Your task to perform on an android device: read, delete, or share a saved page in the chrome app Image 0: 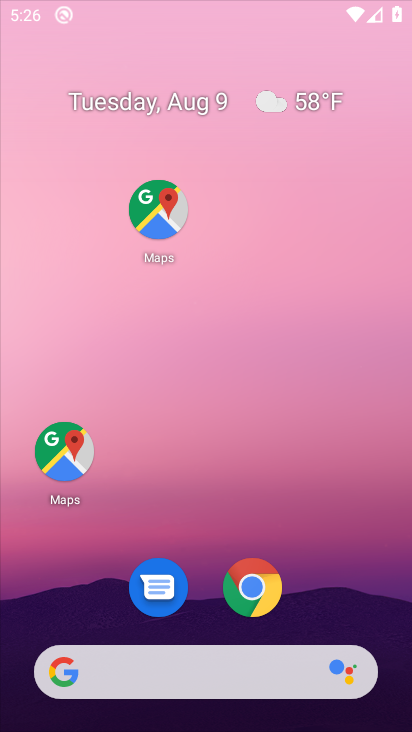
Step 0: click (405, 288)
Your task to perform on an android device: read, delete, or share a saved page in the chrome app Image 1: 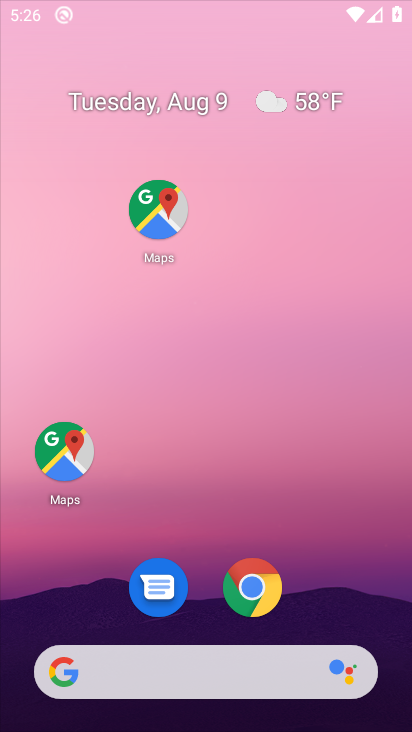
Step 1: drag from (245, 584) to (240, 242)
Your task to perform on an android device: read, delete, or share a saved page in the chrome app Image 2: 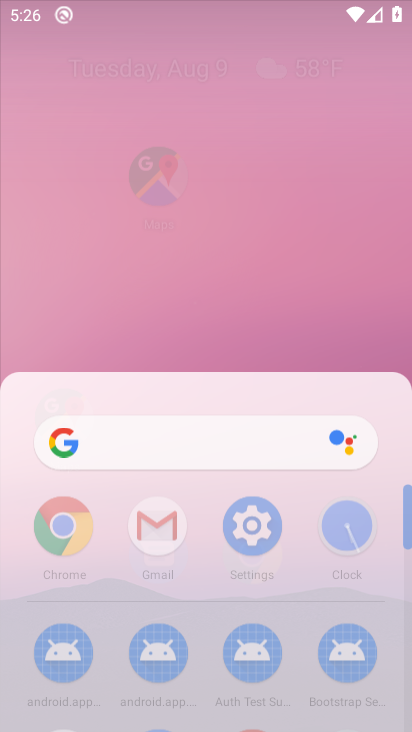
Step 2: drag from (276, 702) to (265, 374)
Your task to perform on an android device: read, delete, or share a saved page in the chrome app Image 3: 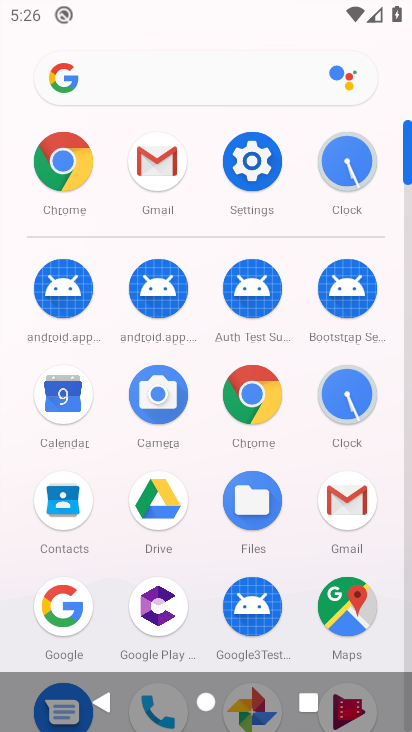
Step 3: click (263, 399)
Your task to perform on an android device: read, delete, or share a saved page in the chrome app Image 4: 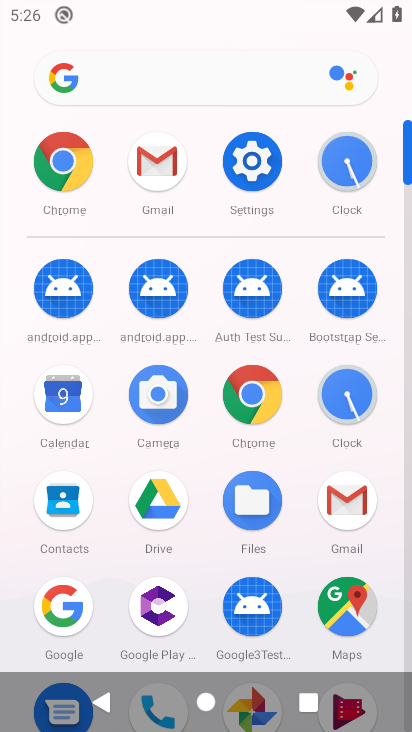
Step 4: click (262, 398)
Your task to perform on an android device: read, delete, or share a saved page in the chrome app Image 5: 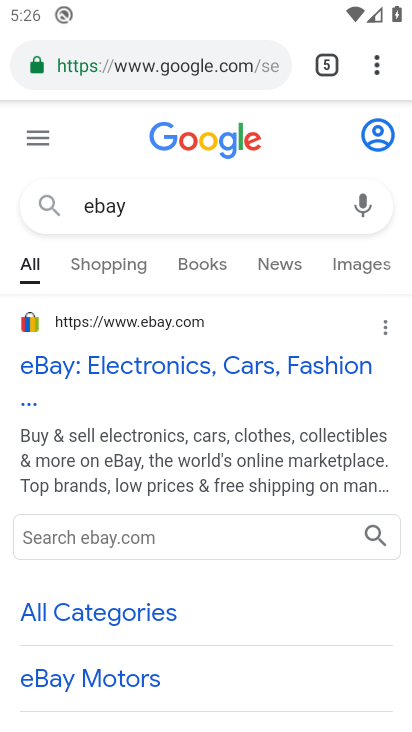
Step 5: drag from (364, 63) to (368, 488)
Your task to perform on an android device: read, delete, or share a saved page in the chrome app Image 6: 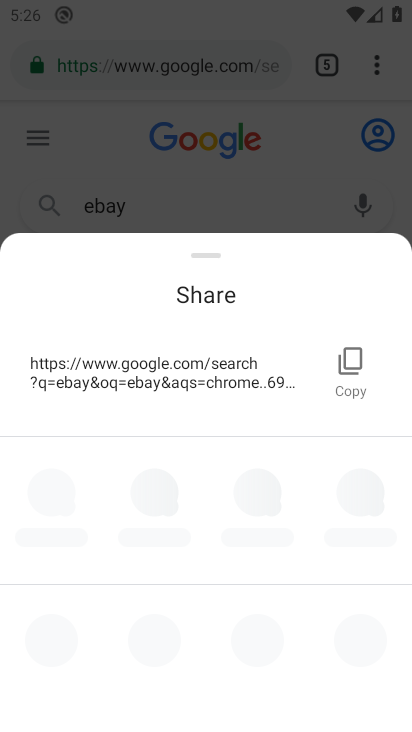
Step 6: click (377, 73)
Your task to perform on an android device: read, delete, or share a saved page in the chrome app Image 7: 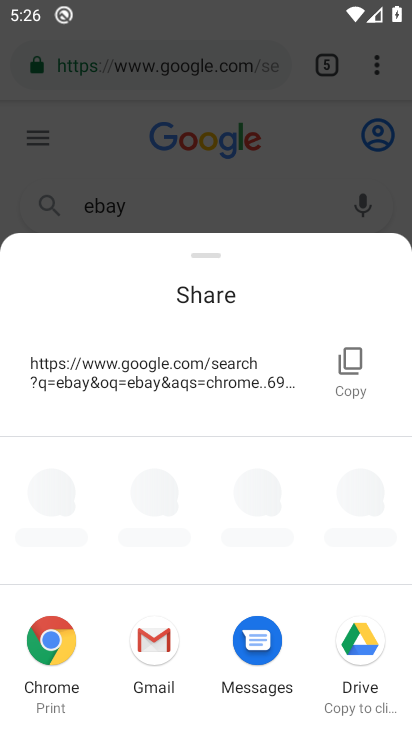
Step 7: click (377, 73)
Your task to perform on an android device: read, delete, or share a saved page in the chrome app Image 8: 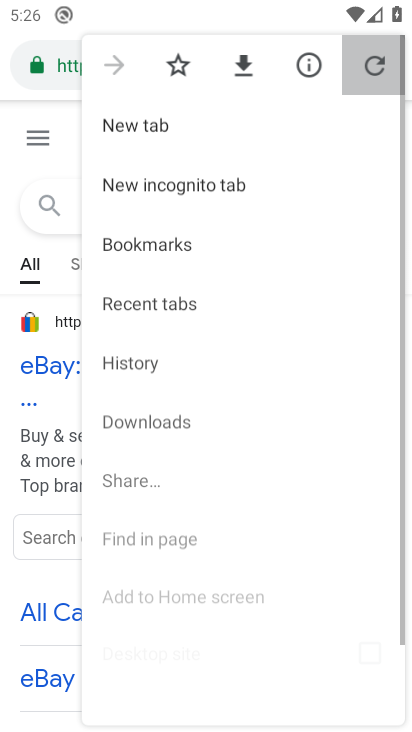
Step 8: click (377, 72)
Your task to perform on an android device: read, delete, or share a saved page in the chrome app Image 9: 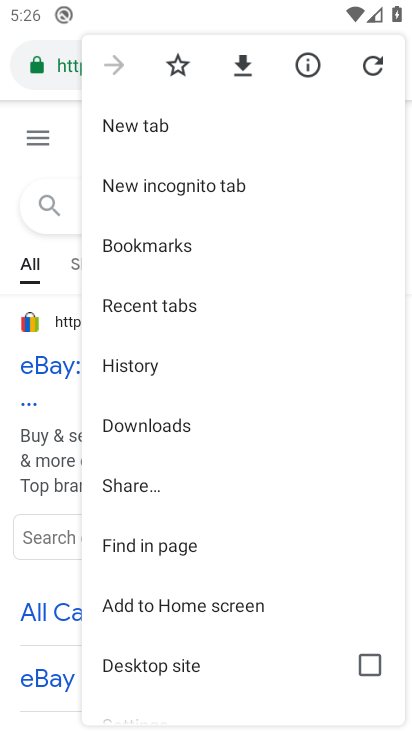
Step 9: click (139, 414)
Your task to perform on an android device: read, delete, or share a saved page in the chrome app Image 10: 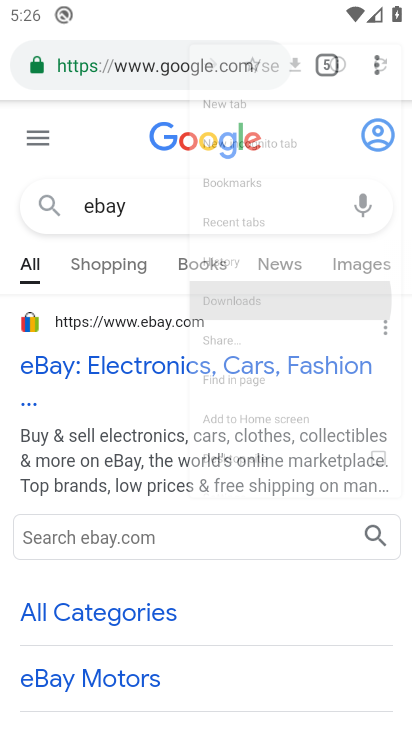
Step 10: click (139, 410)
Your task to perform on an android device: read, delete, or share a saved page in the chrome app Image 11: 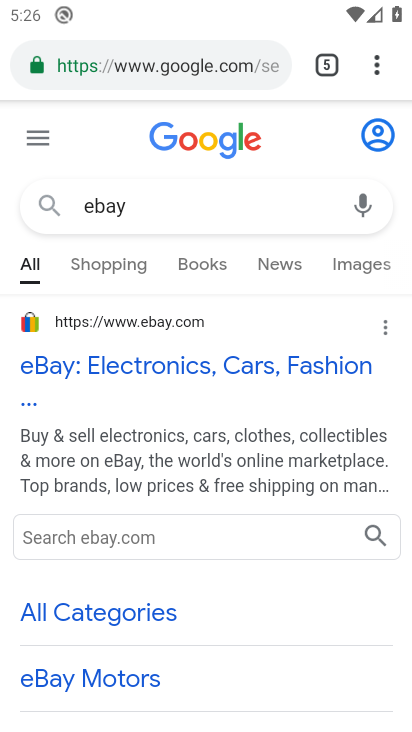
Step 11: click (137, 411)
Your task to perform on an android device: read, delete, or share a saved page in the chrome app Image 12: 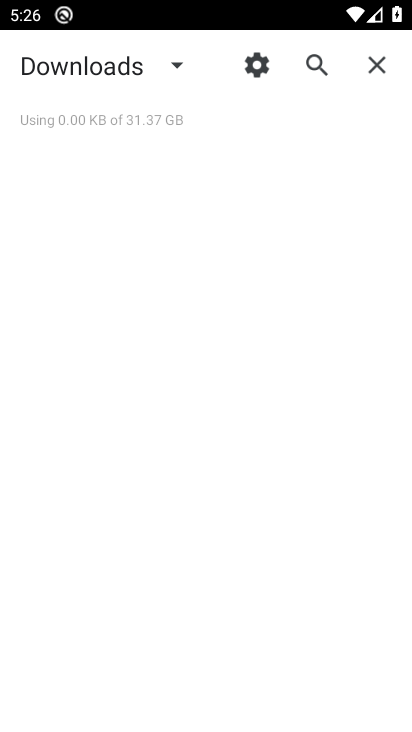
Step 12: click (179, 69)
Your task to perform on an android device: read, delete, or share a saved page in the chrome app Image 13: 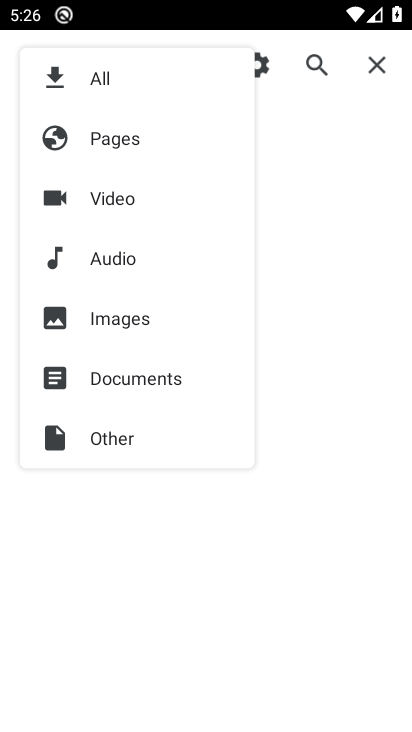
Step 13: click (95, 91)
Your task to perform on an android device: read, delete, or share a saved page in the chrome app Image 14: 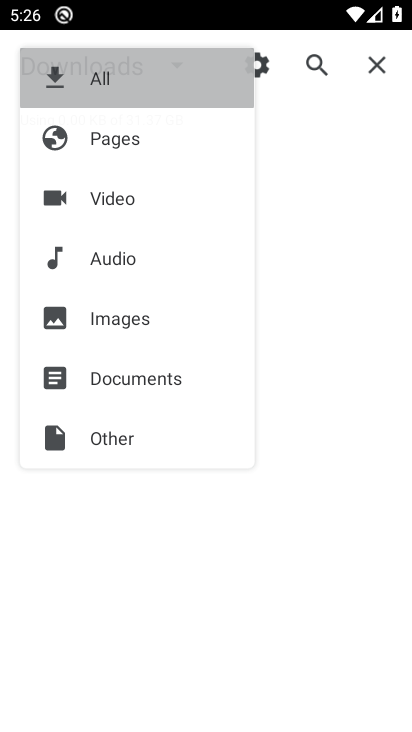
Step 14: click (95, 91)
Your task to perform on an android device: read, delete, or share a saved page in the chrome app Image 15: 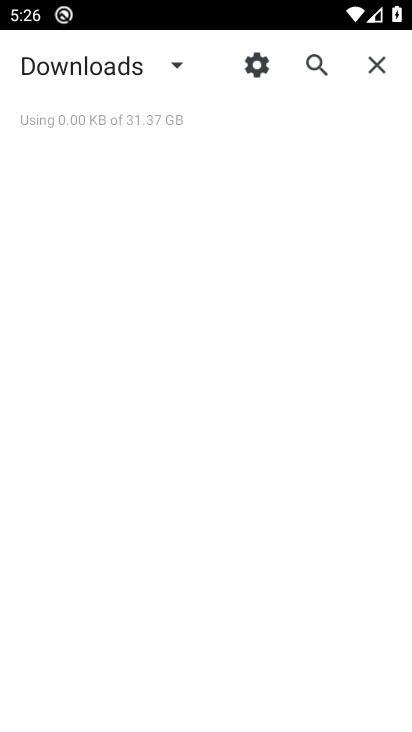
Step 15: click (176, 60)
Your task to perform on an android device: read, delete, or share a saved page in the chrome app Image 16: 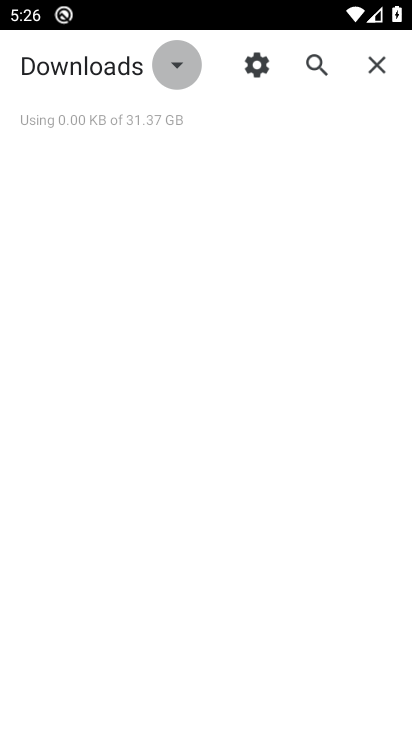
Step 16: click (174, 61)
Your task to perform on an android device: read, delete, or share a saved page in the chrome app Image 17: 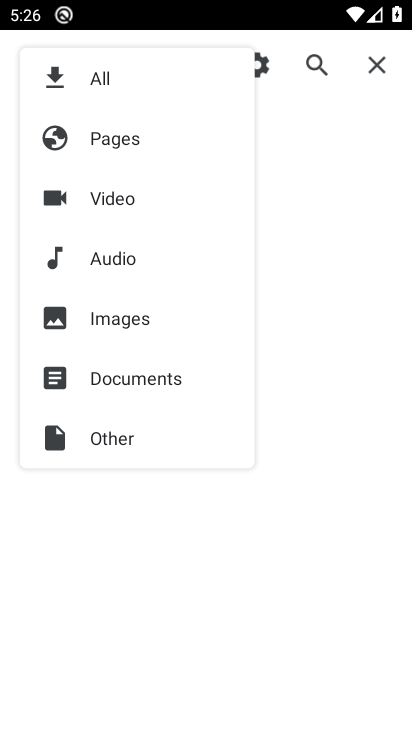
Step 17: click (174, 61)
Your task to perform on an android device: read, delete, or share a saved page in the chrome app Image 18: 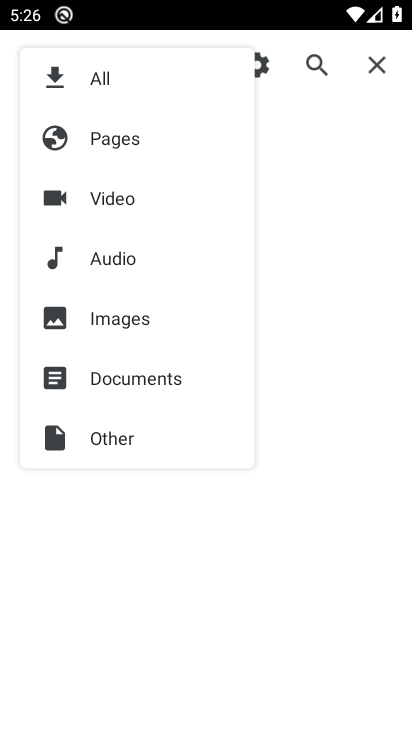
Step 18: task complete